Your task to perform on an android device: find which apps use the phone's location Image 0: 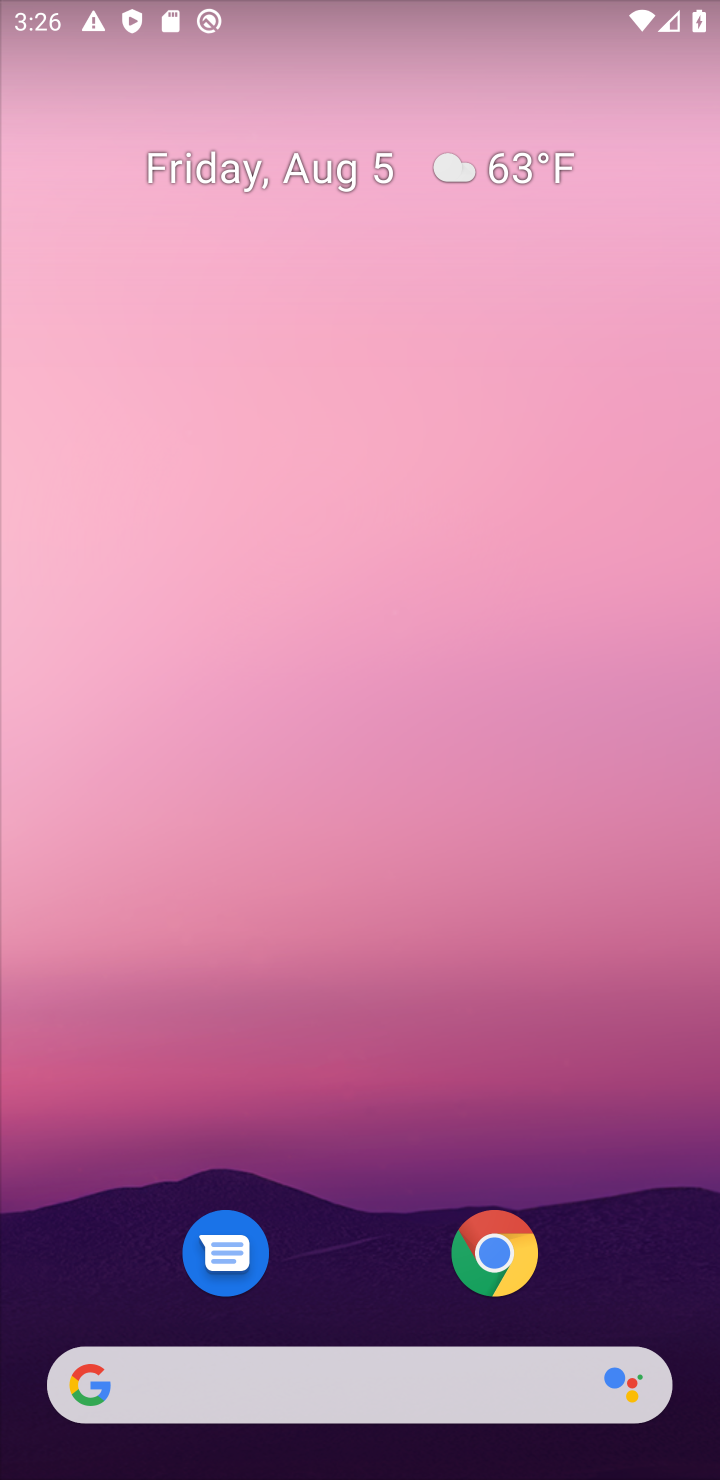
Step 0: press home button
Your task to perform on an android device: find which apps use the phone's location Image 1: 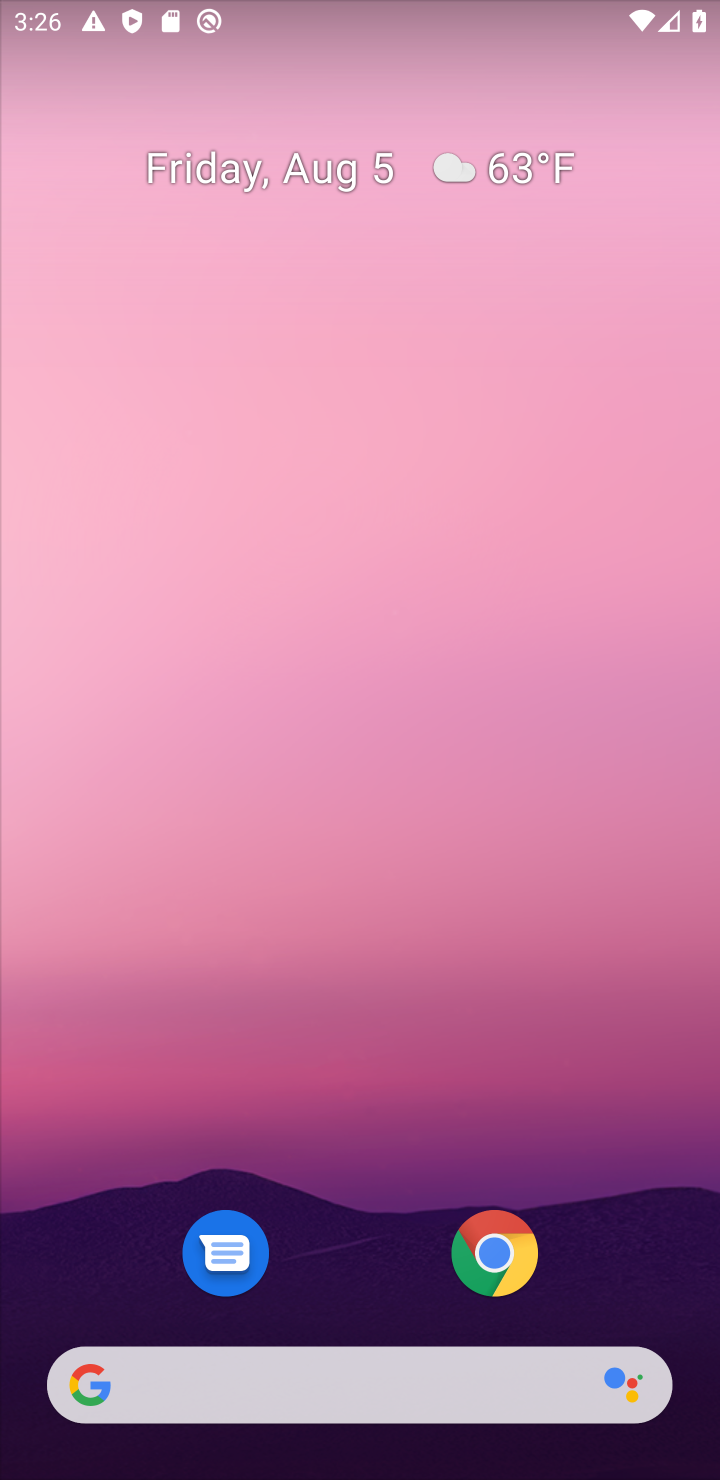
Step 1: drag from (349, 712) to (392, 108)
Your task to perform on an android device: find which apps use the phone's location Image 2: 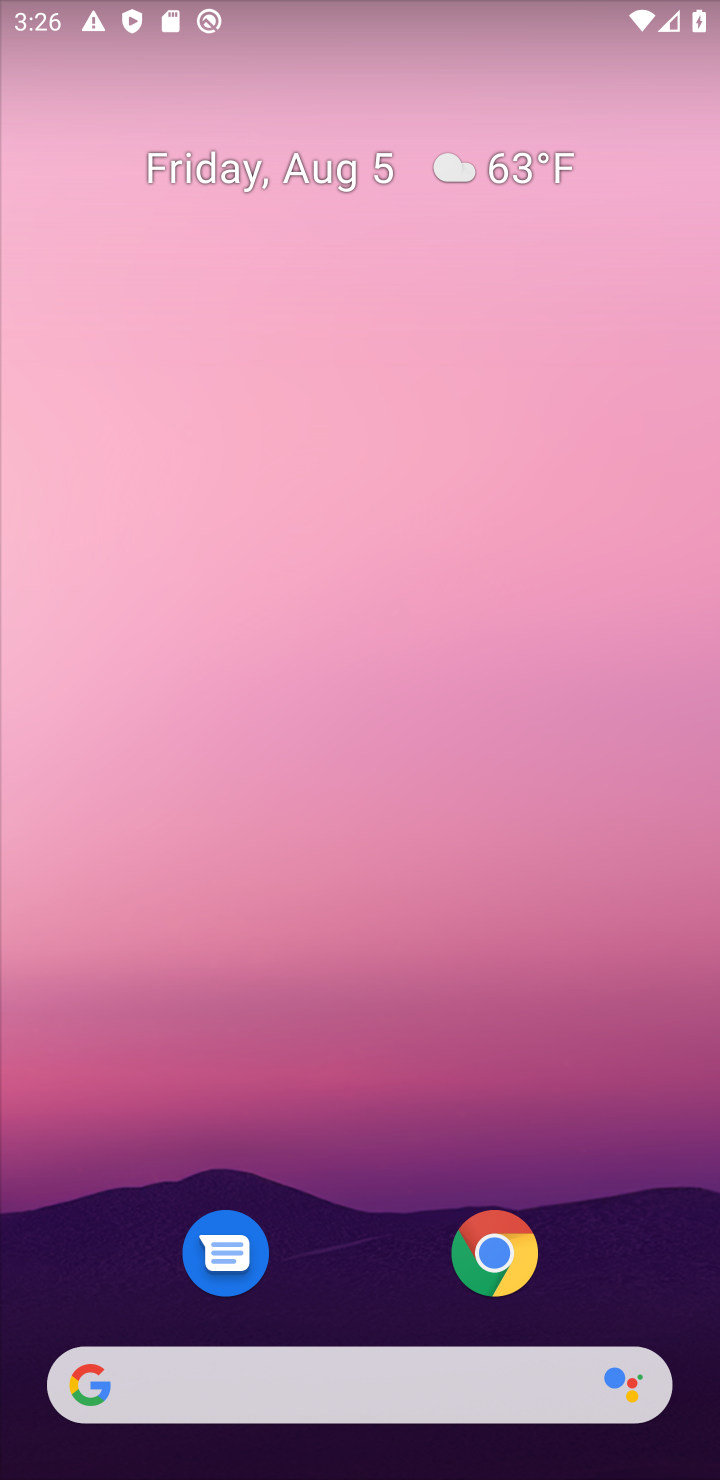
Step 2: drag from (360, 1305) to (323, 28)
Your task to perform on an android device: find which apps use the phone's location Image 3: 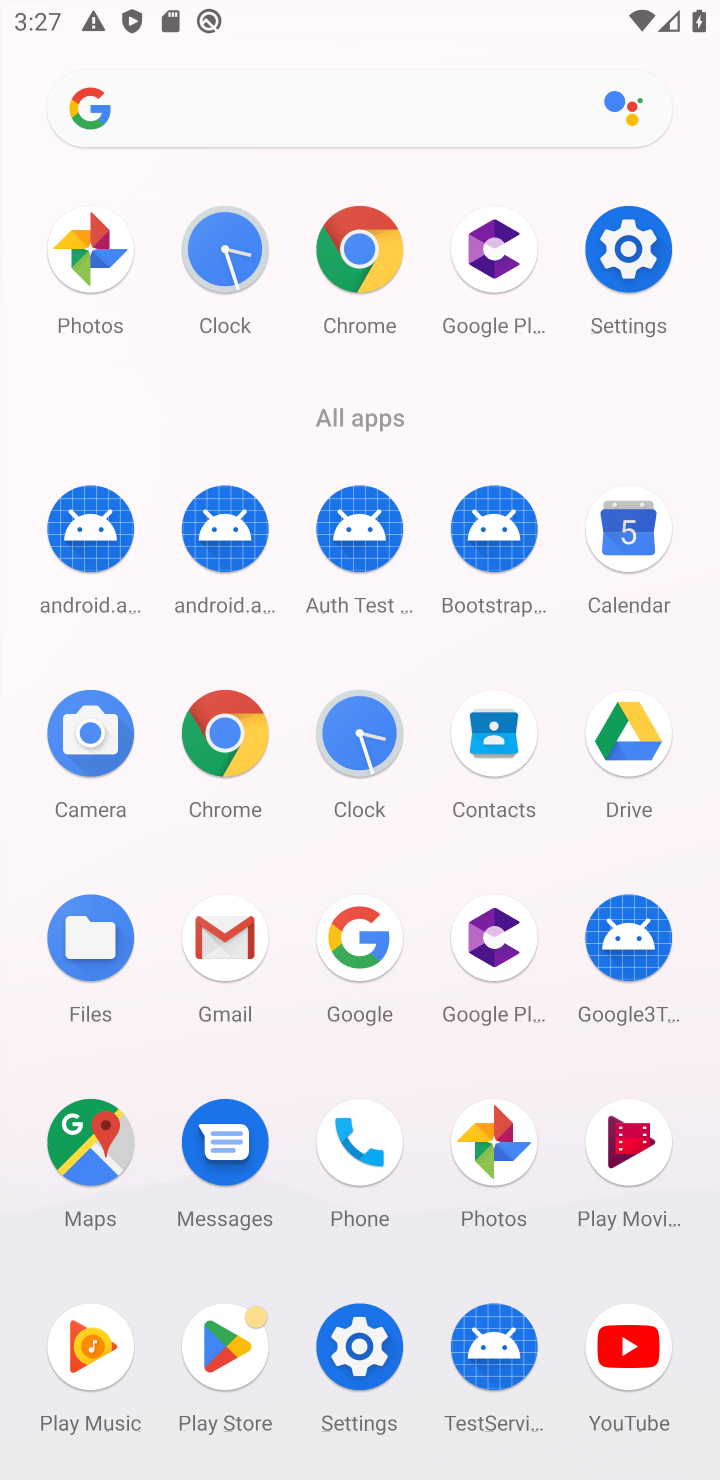
Step 3: click (347, 1332)
Your task to perform on an android device: find which apps use the phone's location Image 4: 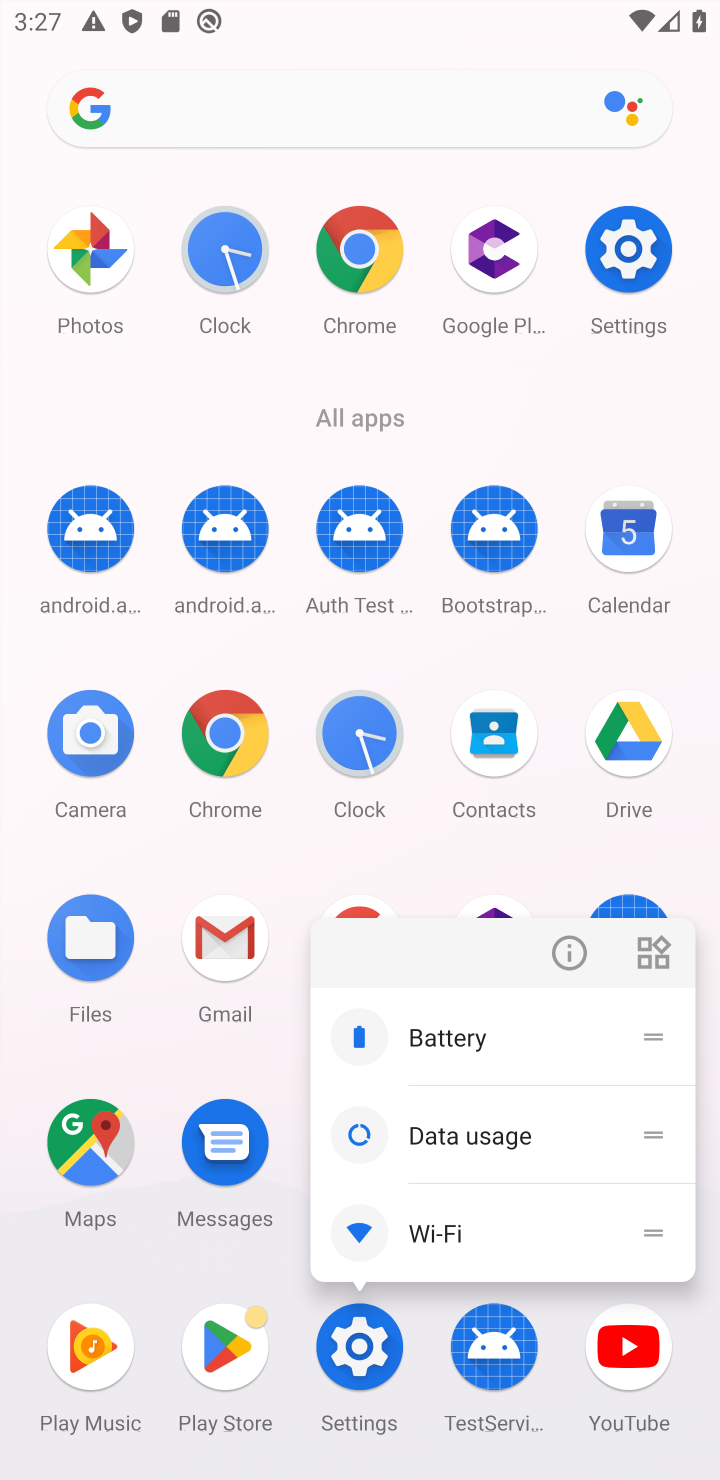
Step 4: click (359, 1337)
Your task to perform on an android device: find which apps use the phone's location Image 5: 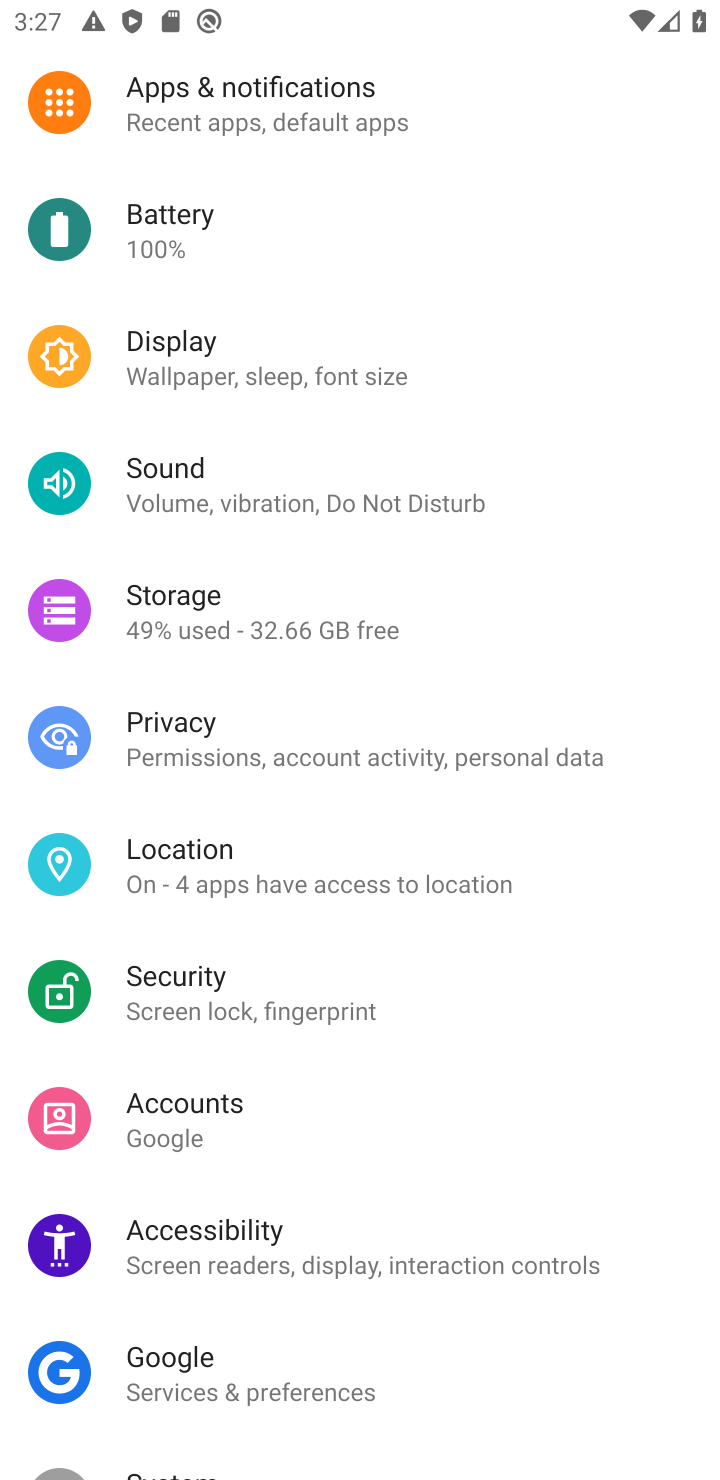
Step 5: click (260, 843)
Your task to perform on an android device: find which apps use the phone's location Image 6: 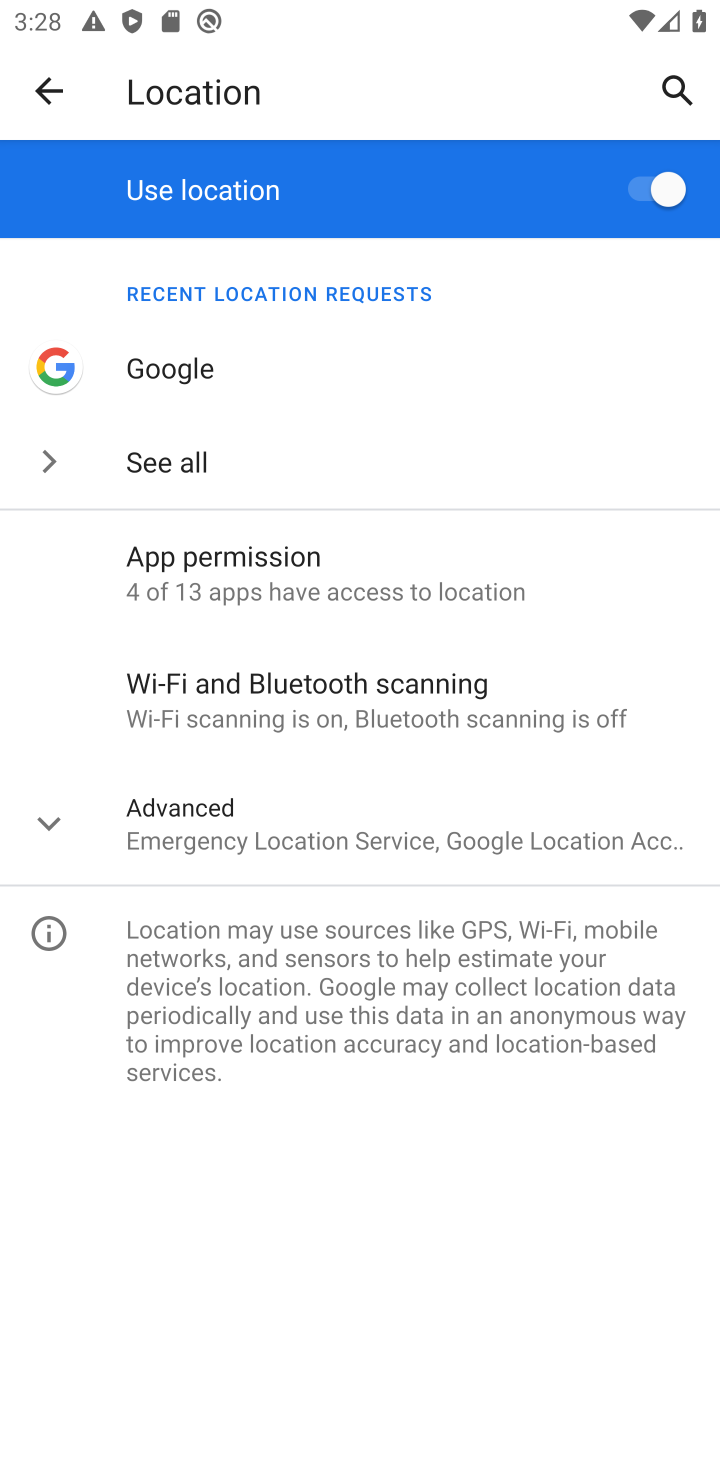
Step 6: click (145, 586)
Your task to perform on an android device: find which apps use the phone's location Image 7: 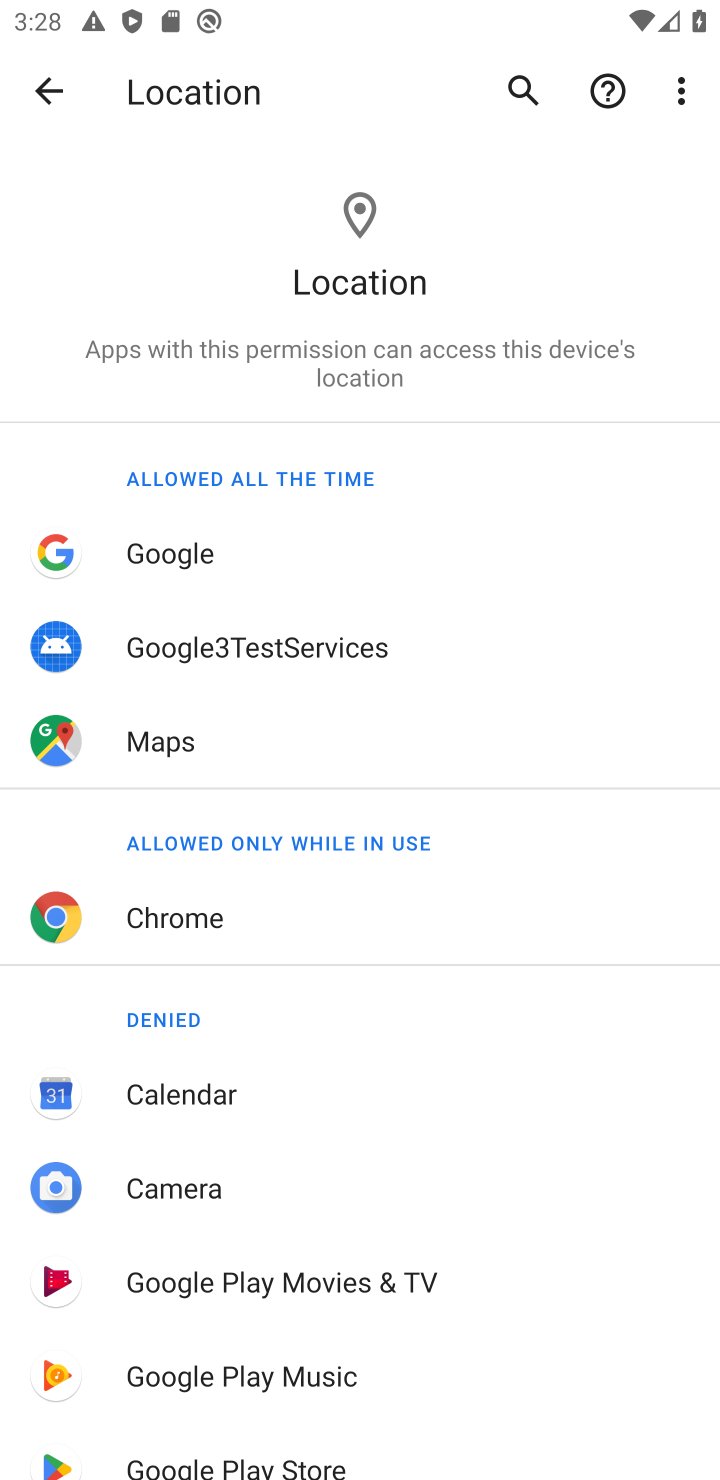
Step 7: task complete